Your task to perform on an android device: Add "dell xps" to the cart on amazon.com, then select checkout. Image 0: 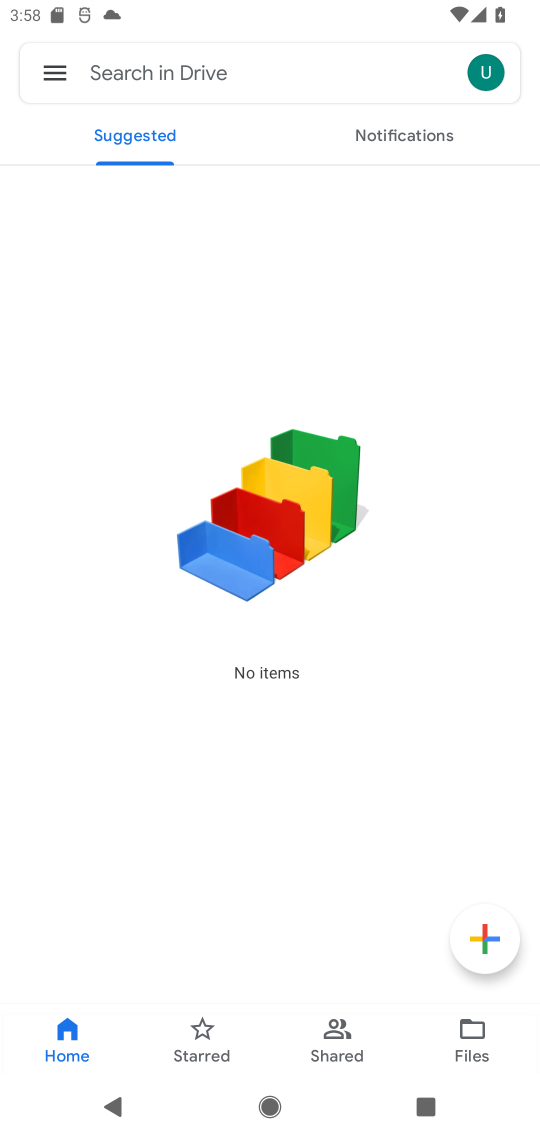
Step 0: press home button
Your task to perform on an android device: Add "dell xps" to the cart on amazon.com, then select checkout. Image 1: 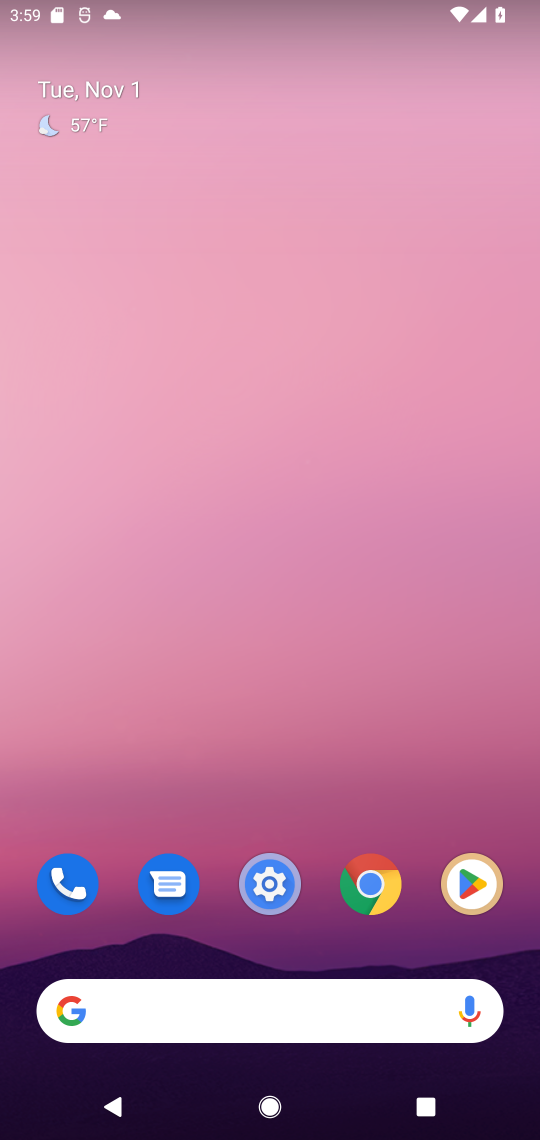
Step 1: click (110, 1011)
Your task to perform on an android device: Add "dell xps" to the cart on amazon.com, then select checkout. Image 2: 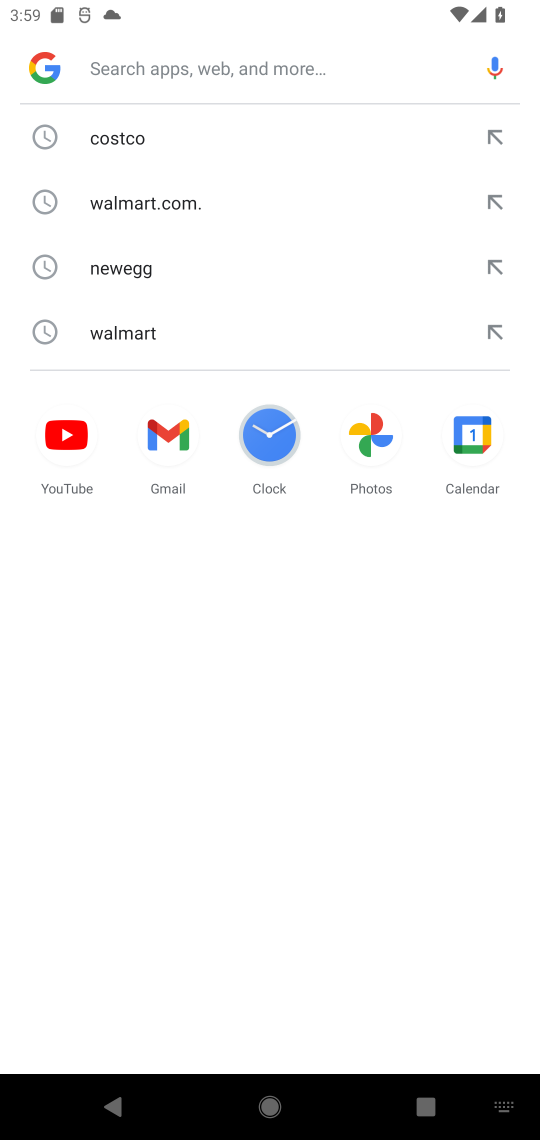
Step 2: type "amazon.com"
Your task to perform on an android device: Add "dell xps" to the cart on amazon.com, then select checkout. Image 3: 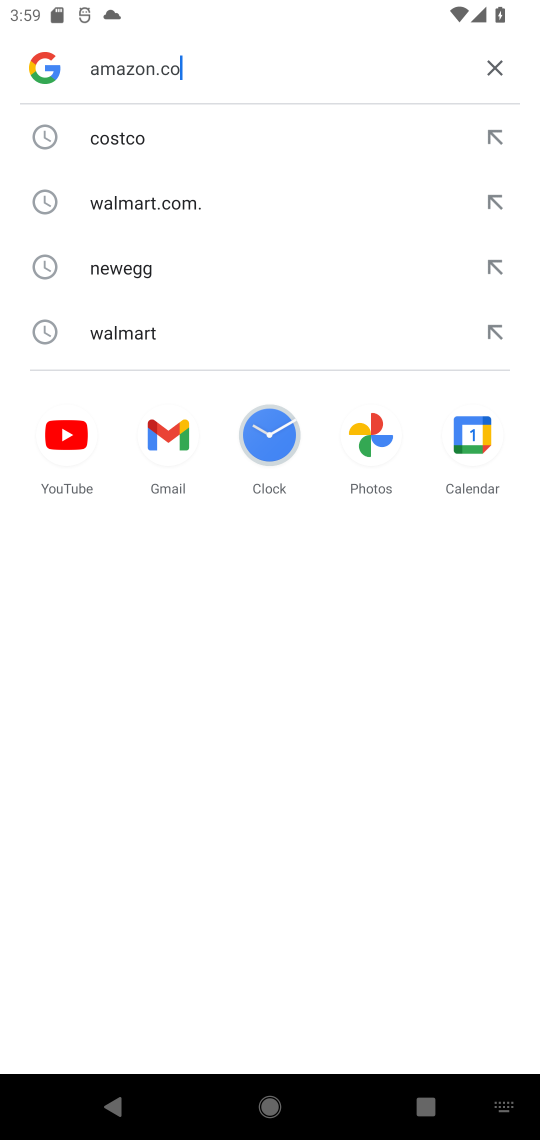
Step 3: press enter
Your task to perform on an android device: Add "dell xps" to the cart on amazon.com, then select checkout. Image 4: 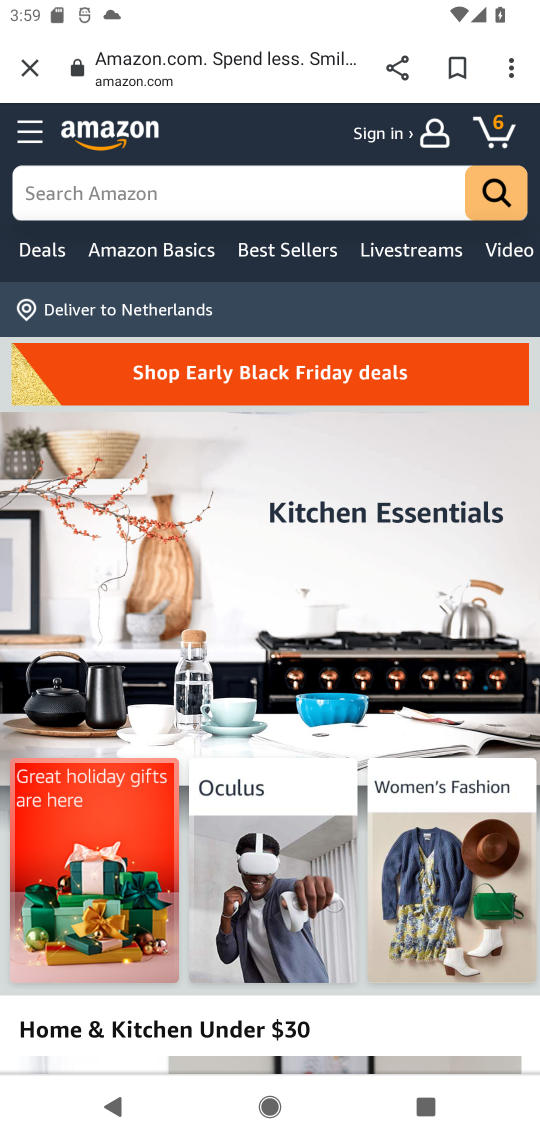
Step 4: click (72, 194)
Your task to perform on an android device: Add "dell xps" to the cart on amazon.com, then select checkout. Image 5: 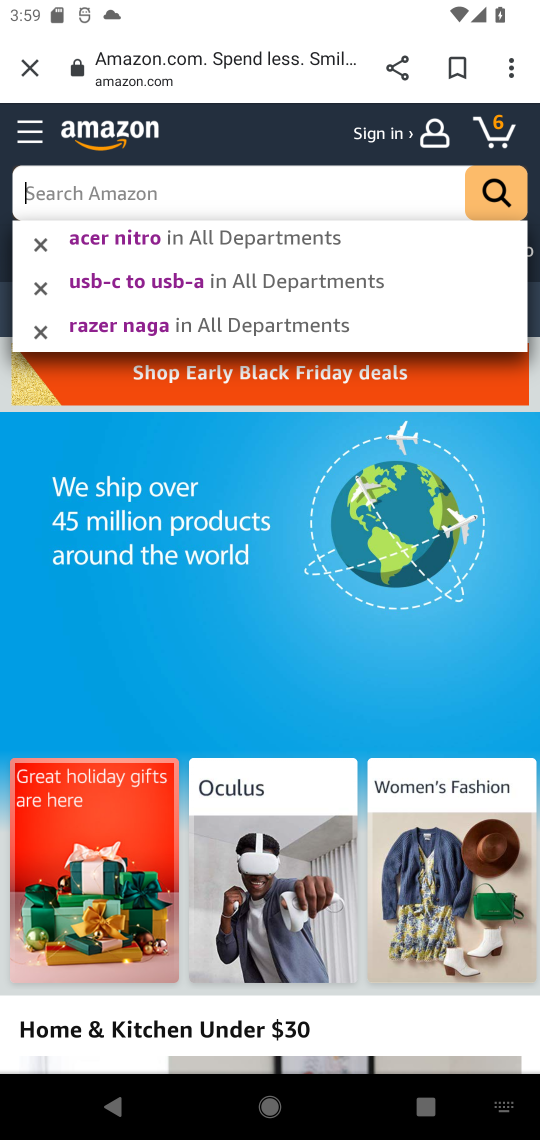
Step 5: type "dell xps"
Your task to perform on an android device: Add "dell xps" to the cart on amazon.com, then select checkout. Image 6: 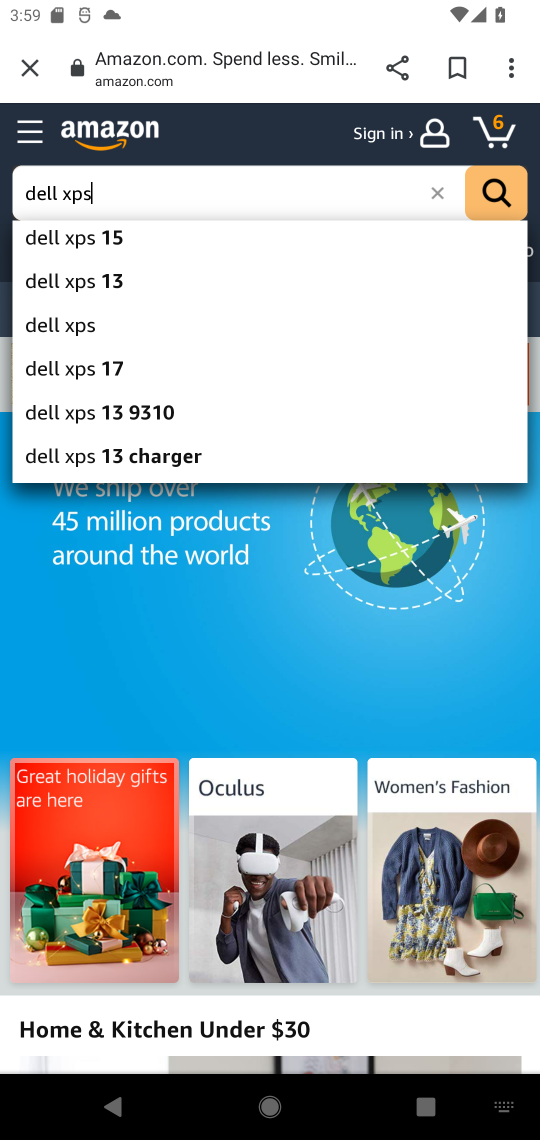
Step 6: click (492, 184)
Your task to perform on an android device: Add "dell xps" to the cart on amazon.com, then select checkout. Image 7: 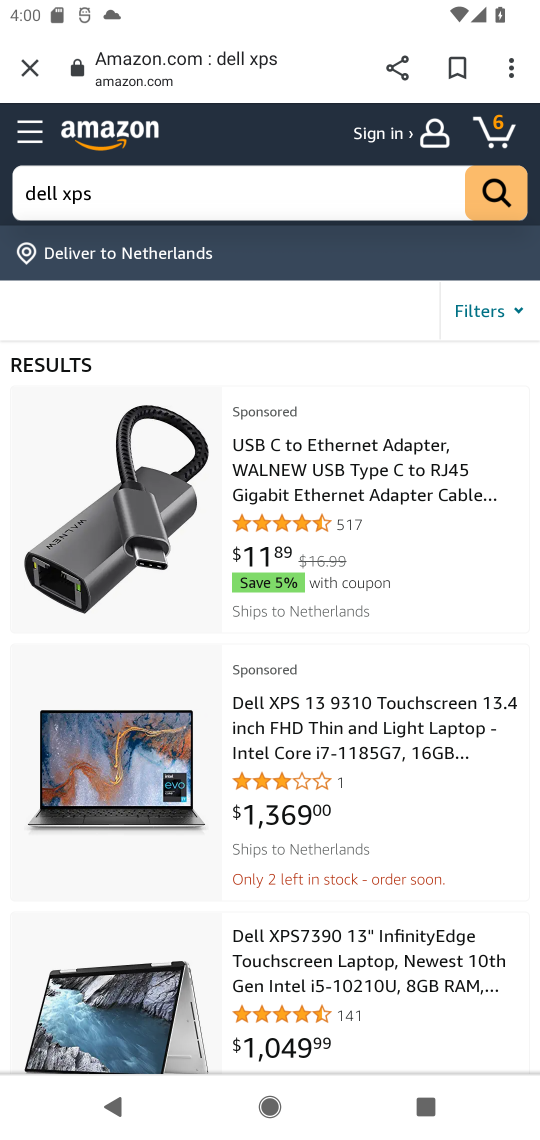
Step 7: click (321, 711)
Your task to perform on an android device: Add "dell xps" to the cart on amazon.com, then select checkout. Image 8: 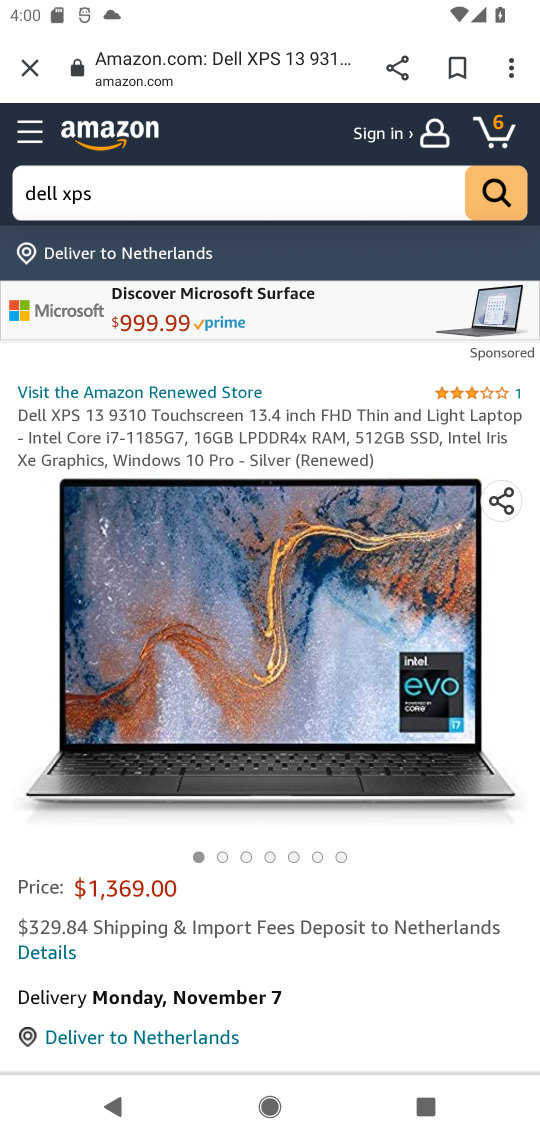
Step 8: drag from (373, 964) to (352, 398)
Your task to perform on an android device: Add "dell xps" to the cart on amazon.com, then select checkout. Image 9: 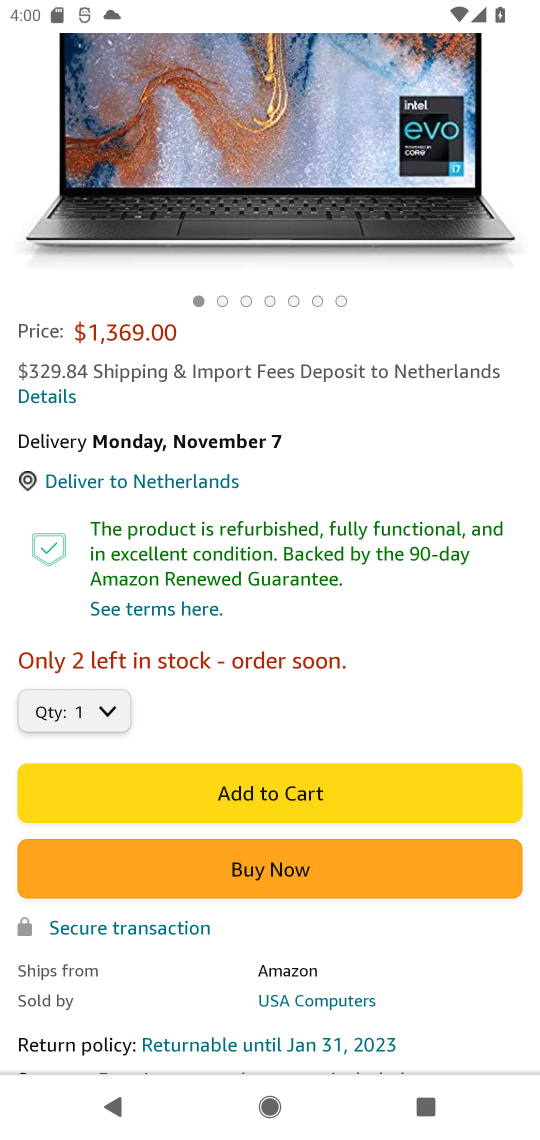
Step 9: drag from (318, 914) to (338, 480)
Your task to perform on an android device: Add "dell xps" to the cart on amazon.com, then select checkout. Image 10: 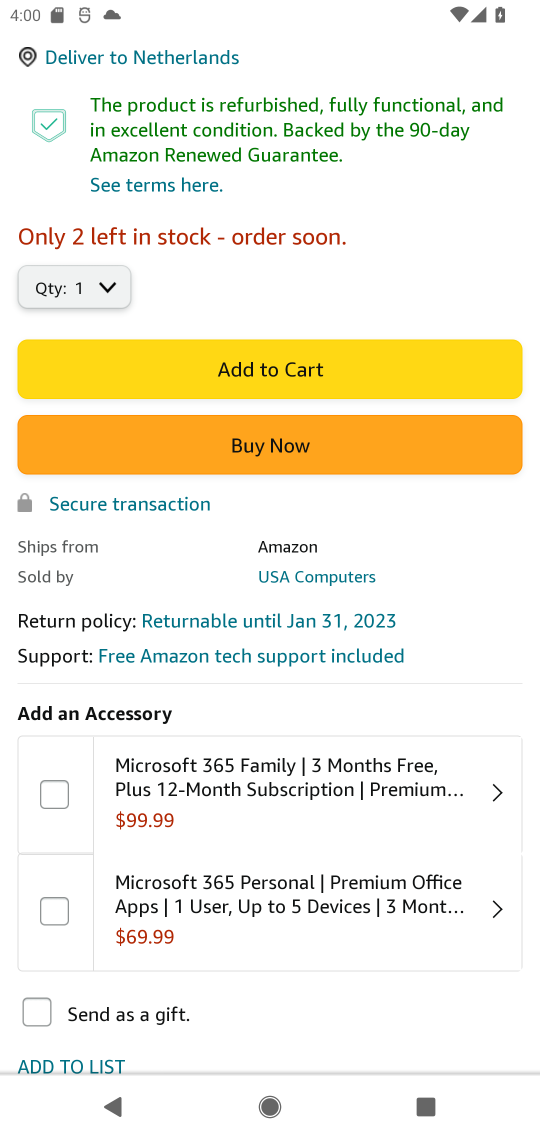
Step 10: click (253, 370)
Your task to perform on an android device: Add "dell xps" to the cart on amazon.com, then select checkout. Image 11: 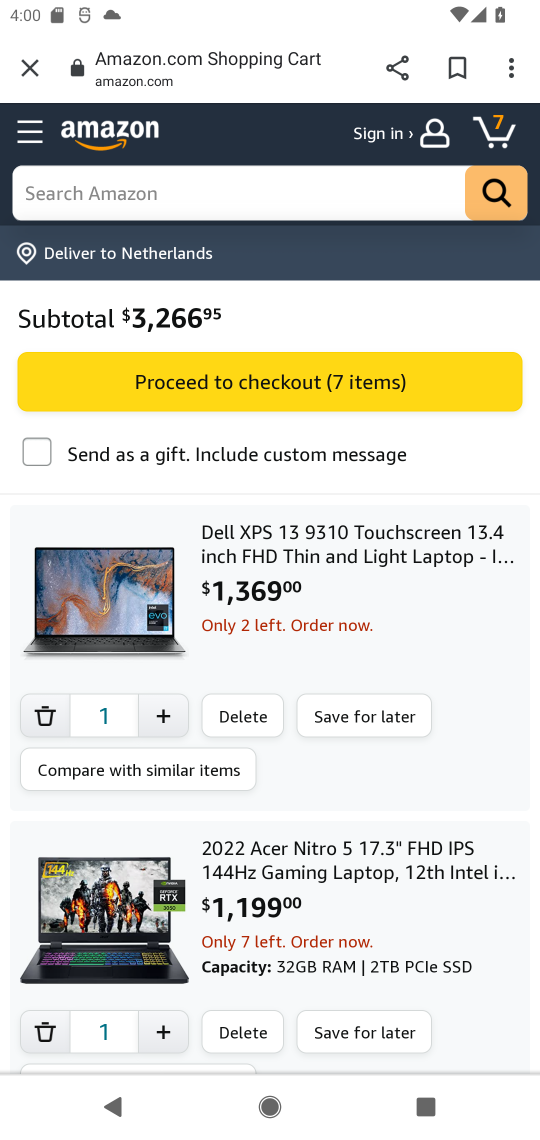
Step 11: click (192, 388)
Your task to perform on an android device: Add "dell xps" to the cart on amazon.com, then select checkout. Image 12: 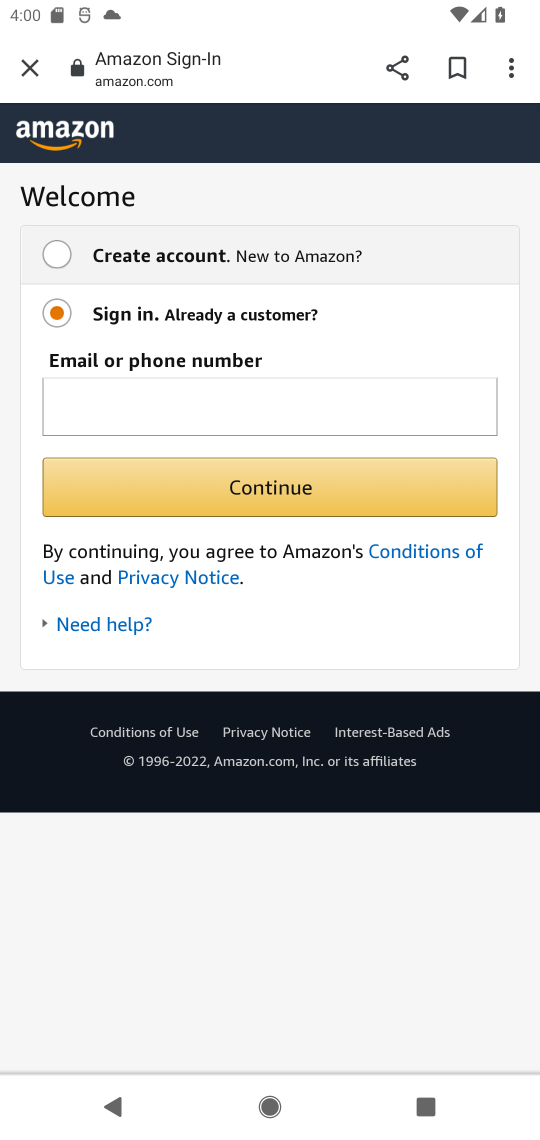
Step 12: task complete